Your task to perform on an android device: create a new album in the google photos Image 0: 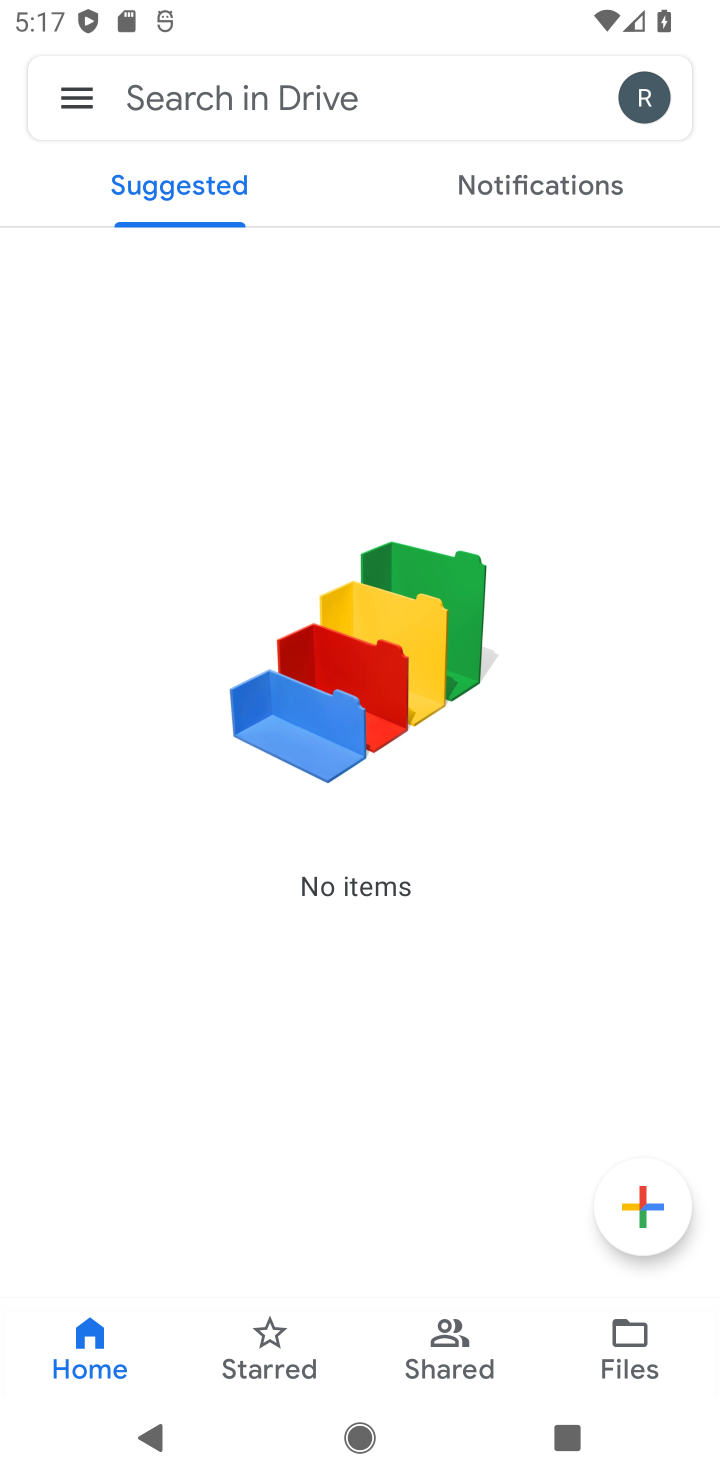
Step 0: press home button
Your task to perform on an android device: create a new album in the google photos Image 1: 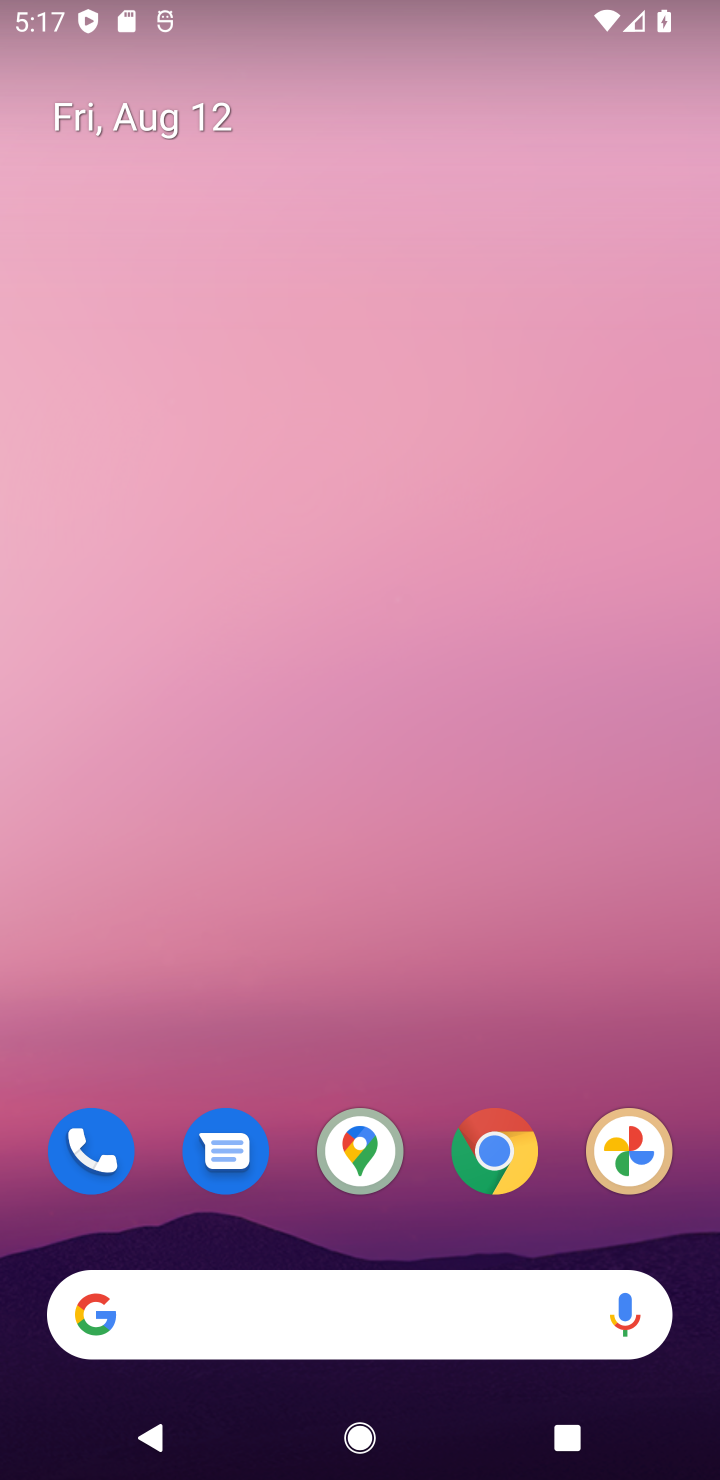
Step 1: drag from (287, 1092) to (429, 29)
Your task to perform on an android device: create a new album in the google photos Image 2: 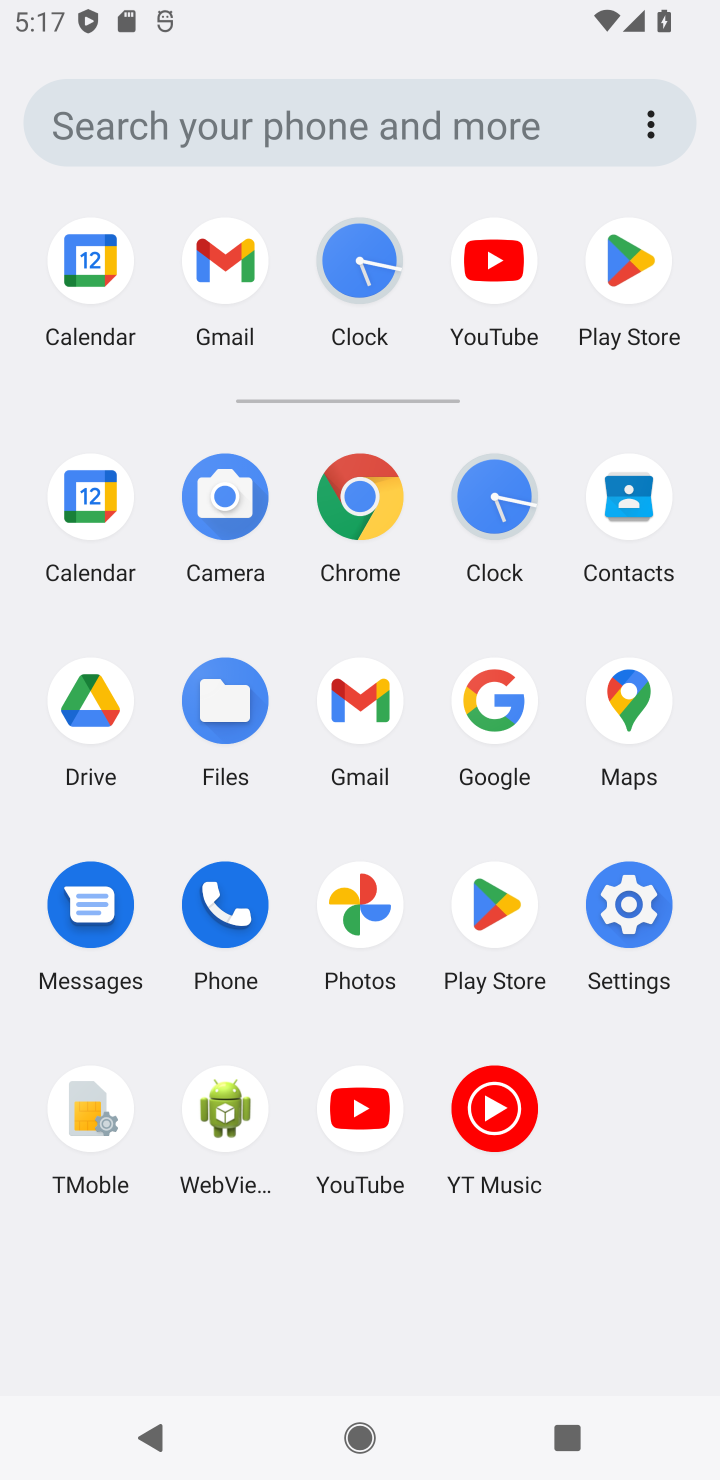
Step 2: click (366, 915)
Your task to perform on an android device: create a new album in the google photos Image 3: 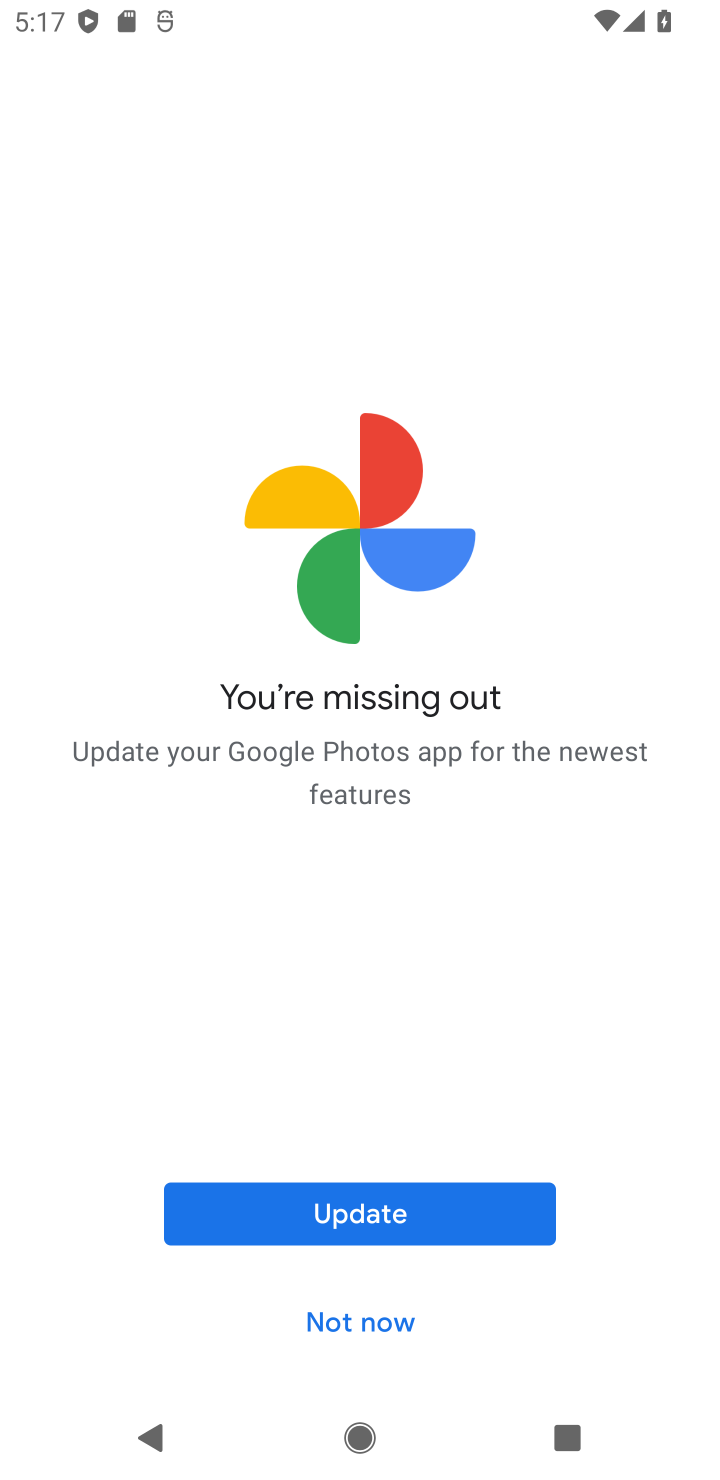
Step 3: click (345, 1334)
Your task to perform on an android device: create a new album in the google photos Image 4: 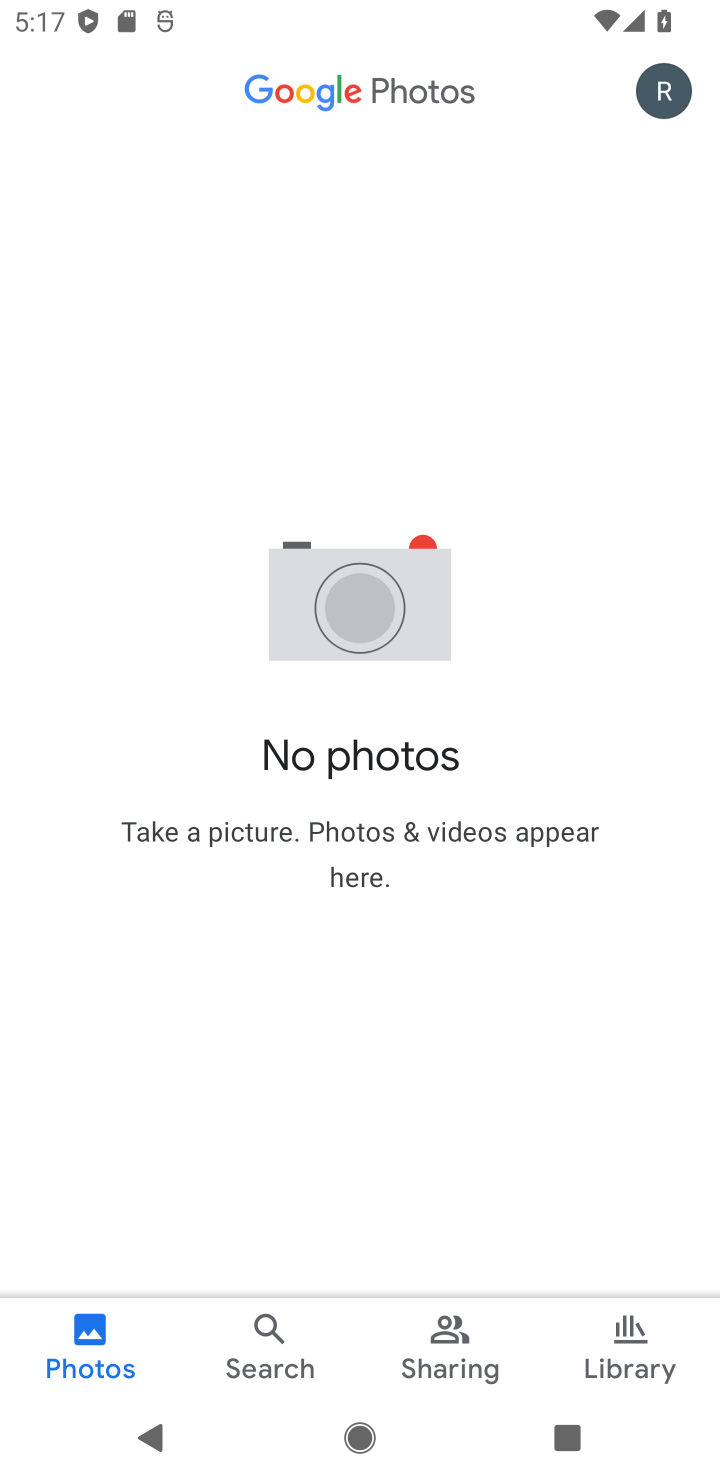
Step 4: click (476, 1333)
Your task to perform on an android device: create a new album in the google photos Image 5: 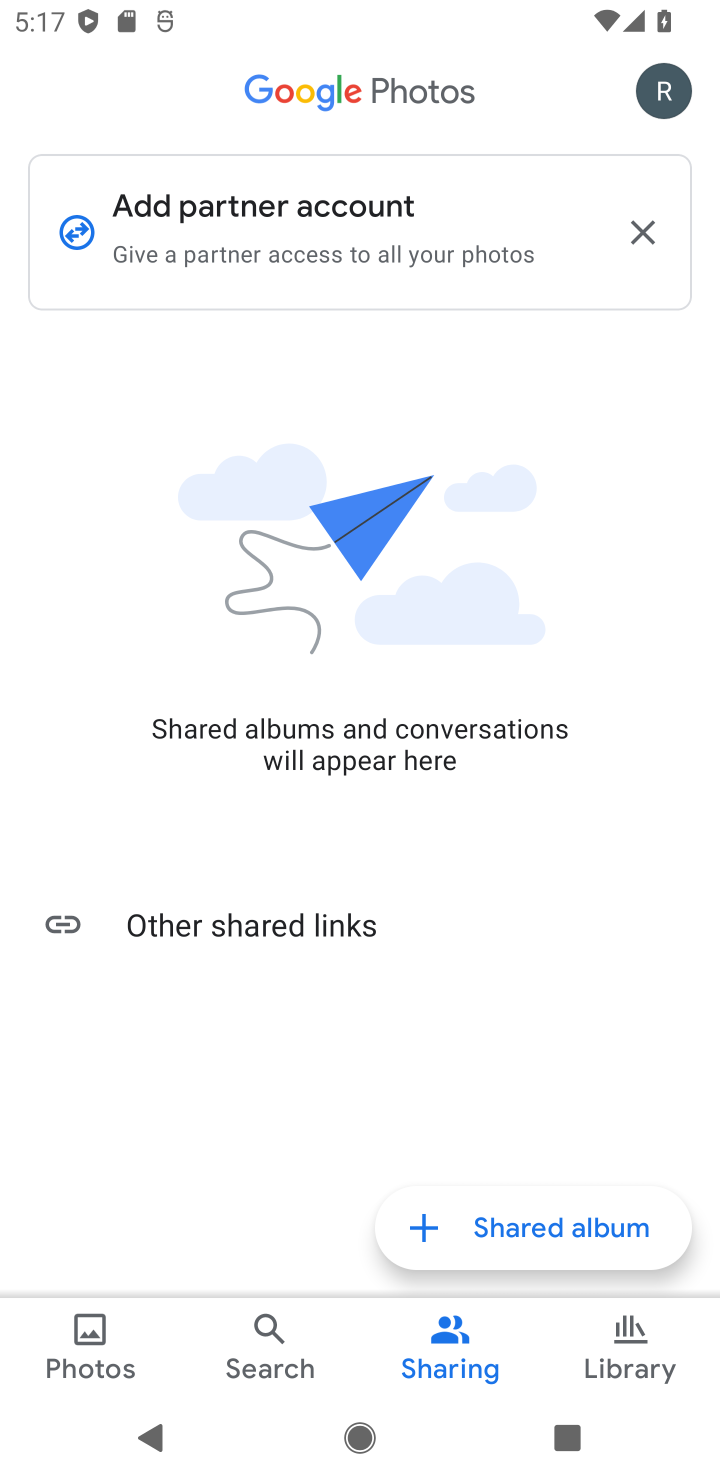
Step 5: click (662, 1343)
Your task to perform on an android device: create a new album in the google photos Image 6: 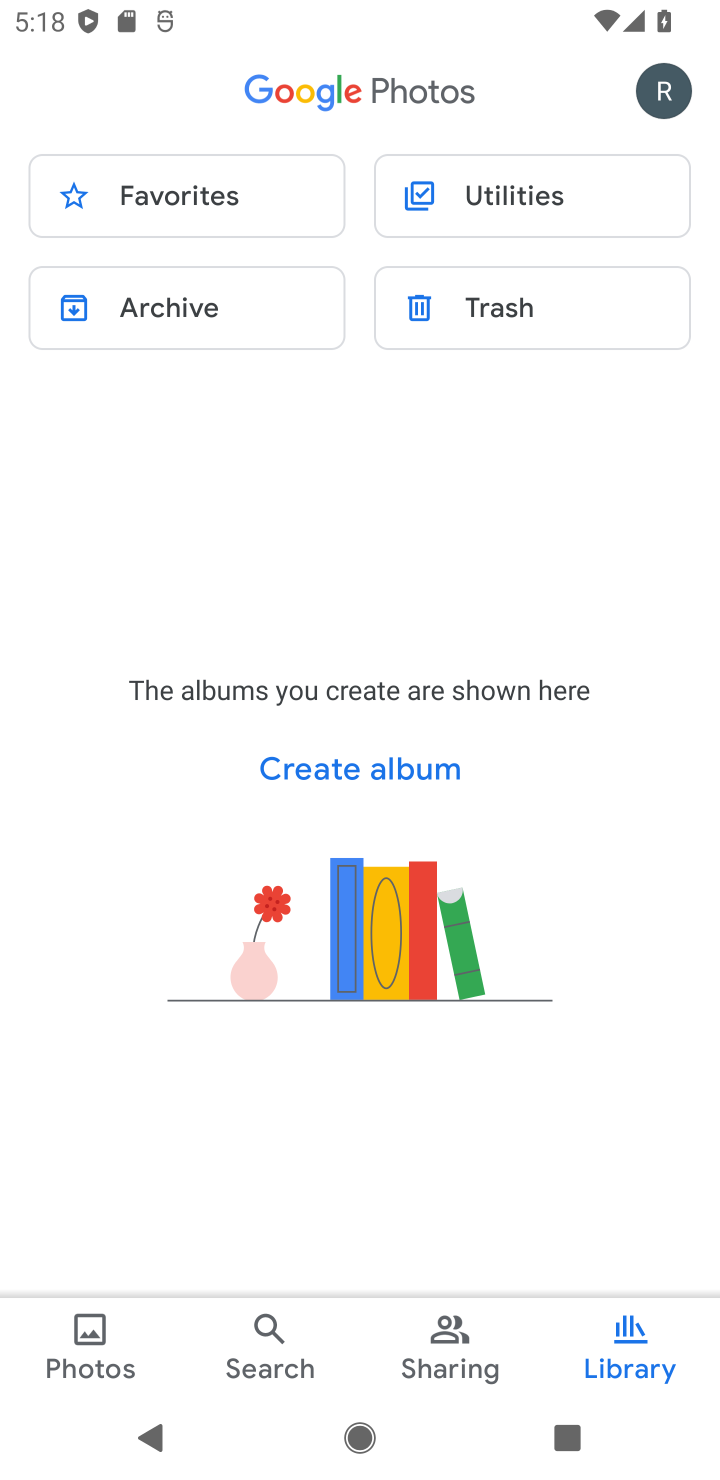
Step 6: click (396, 774)
Your task to perform on an android device: create a new album in the google photos Image 7: 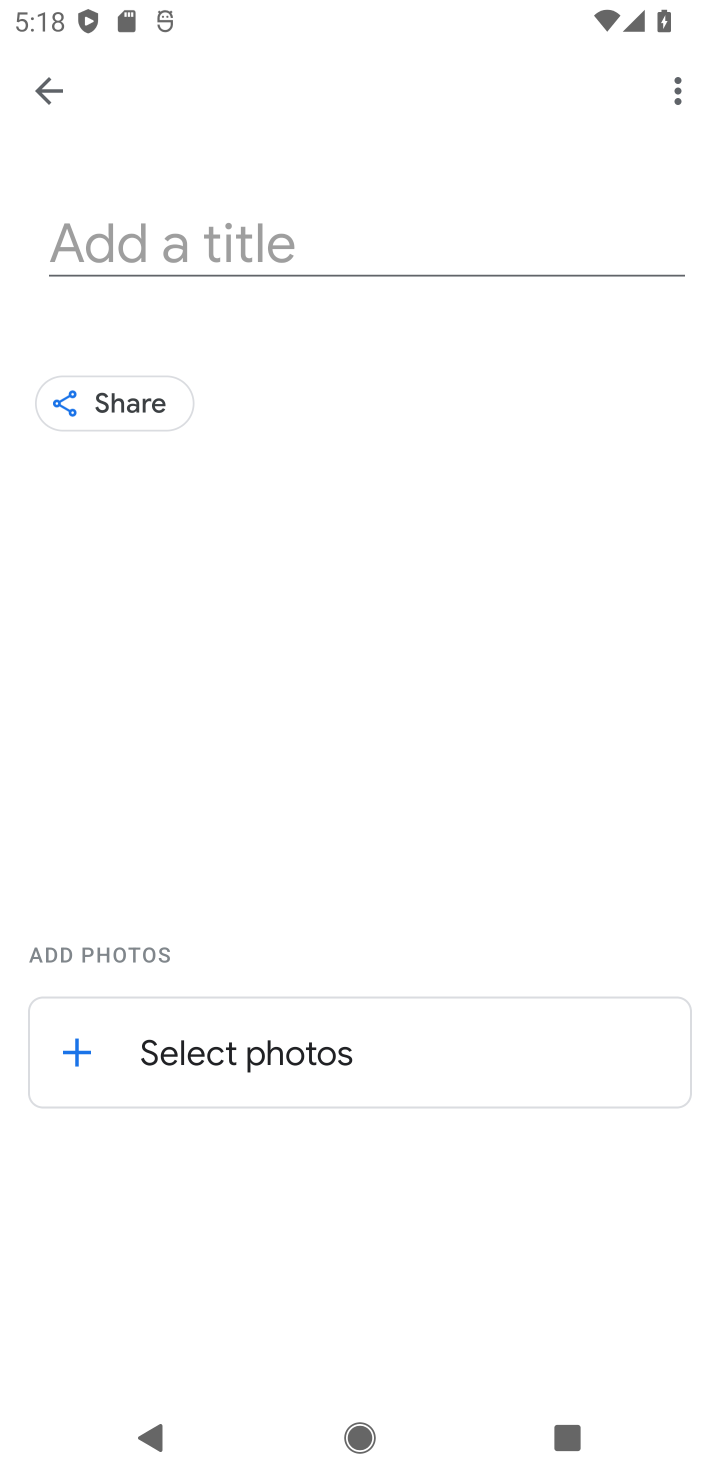
Step 7: click (400, 260)
Your task to perform on an android device: create a new album in the google photos Image 8: 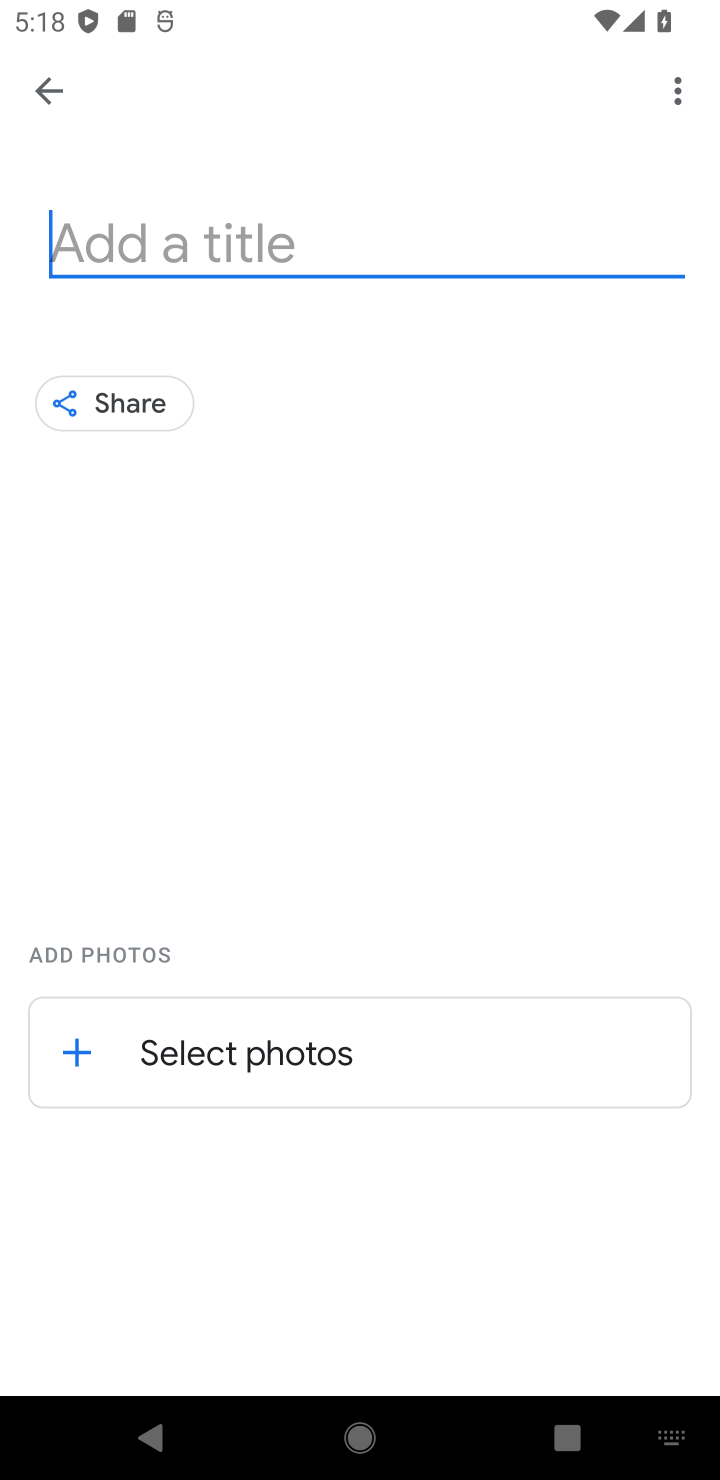
Step 8: type "loptop"
Your task to perform on an android device: create a new album in the google photos Image 9: 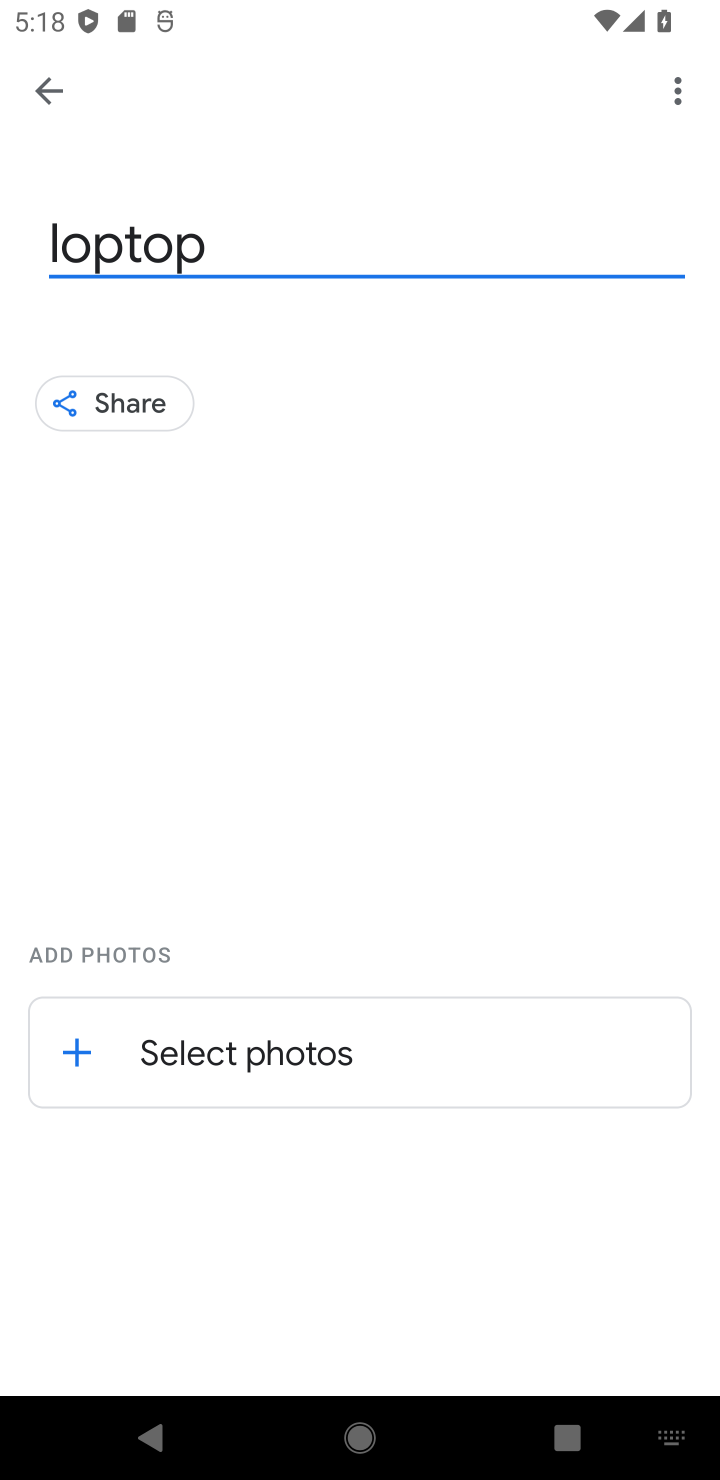
Step 9: press enter
Your task to perform on an android device: create a new album in the google photos Image 10: 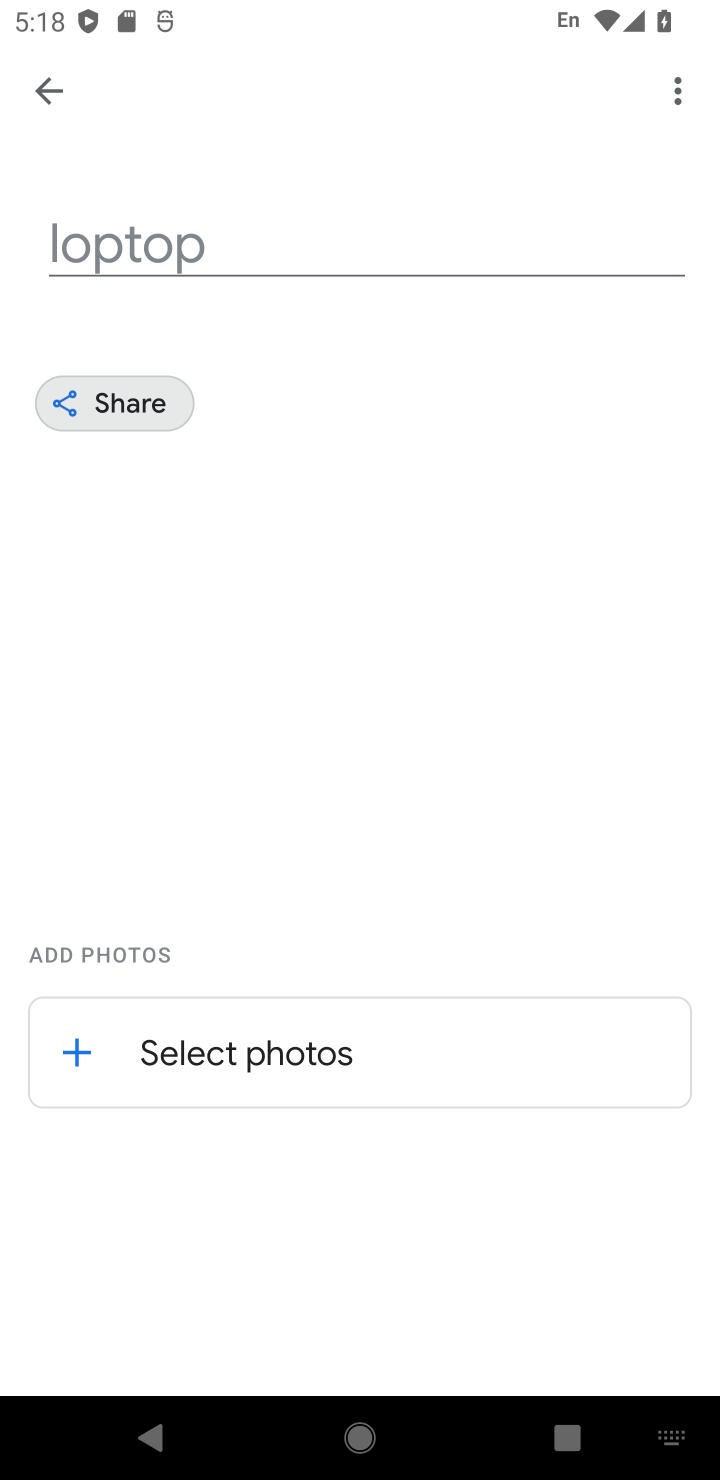
Step 10: task complete